Your task to perform on an android device: open app "WhatsApp Messenger" (install if not already installed) and enter user name: "cartons@outlook.com" and password: "approximated" Image 0: 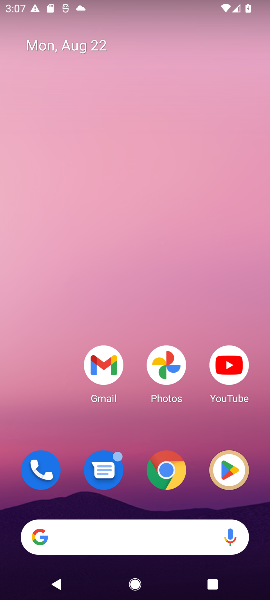
Step 0: drag from (76, 518) to (74, 88)
Your task to perform on an android device: open app "WhatsApp Messenger" (install if not already installed) and enter user name: "cartons@outlook.com" and password: "approximated" Image 1: 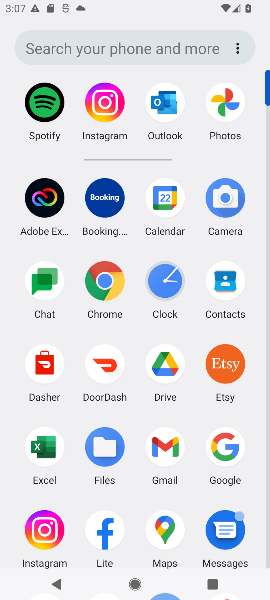
Step 1: drag from (111, 497) to (119, 89)
Your task to perform on an android device: open app "WhatsApp Messenger" (install if not already installed) and enter user name: "cartons@outlook.com" and password: "approximated" Image 2: 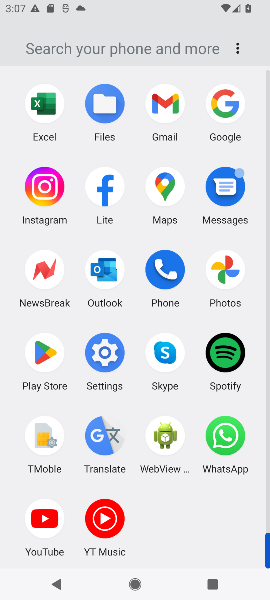
Step 2: click (34, 356)
Your task to perform on an android device: open app "WhatsApp Messenger" (install if not already installed) and enter user name: "cartons@outlook.com" and password: "approximated" Image 3: 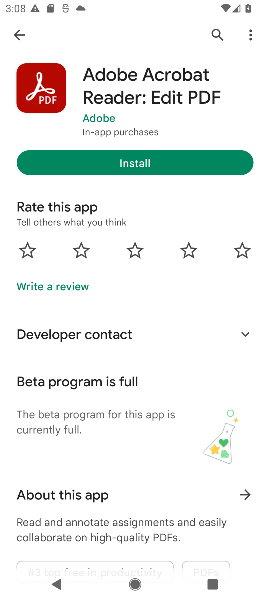
Step 3: click (9, 29)
Your task to perform on an android device: open app "WhatsApp Messenger" (install if not already installed) and enter user name: "cartons@outlook.com" and password: "approximated" Image 4: 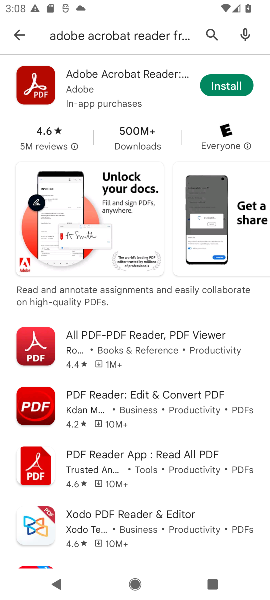
Step 4: click (21, 30)
Your task to perform on an android device: open app "WhatsApp Messenger" (install if not already installed) and enter user name: "cartons@outlook.com" and password: "approximated" Image 5: 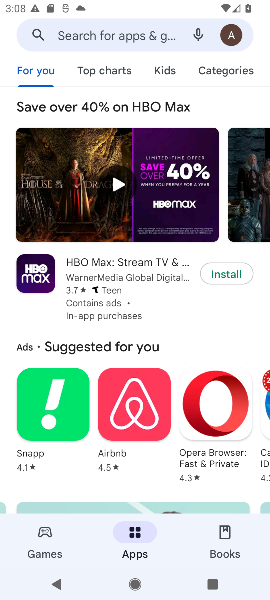
Step 5: click (117, 19)
Your task to perform on an android device: open app "WhatsApp Messenger" (install if not already installed) and enter user name: "cartons@outlook.com" and password: "approximated" Image 6: 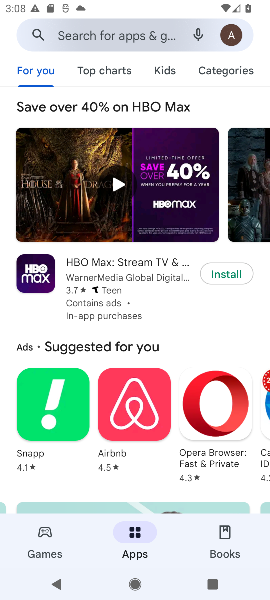
Step 6: click (117, 33)
Your task to perform on an android device: open app "WhatsApp Messenger" (install if not already installed) and enter user name: "cartons@outlook.com" and password: "approximated" Image 7: 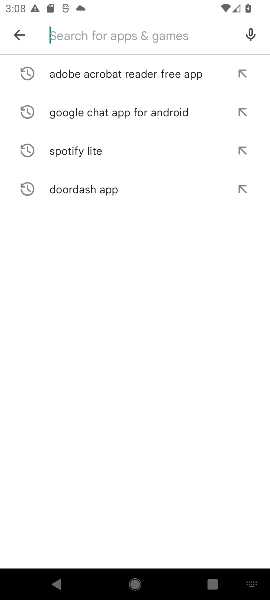
Step 7: type "WhatsApp Messenger "
Your task to perform on an android device: open app "WhatsApp Messenger" (install if not already installed) and enter user name: "cartons@outlook.com" and password: "approximated" Image 8: 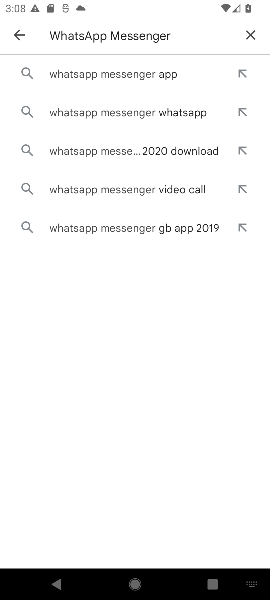
Step 8: click (136, 61)
Your task to perform on an android device: open app "WhatsApp Messenger" (install if not already installed) and enter user name: "cartons@outlook.com" and password: "approximated" Image 9: 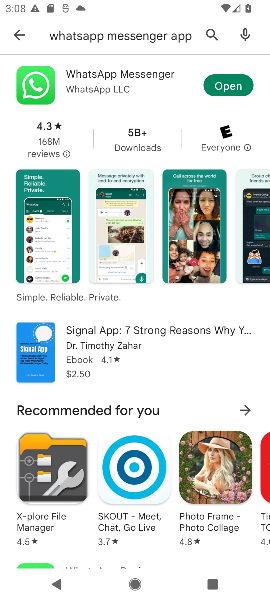
Step 9: click (229, 76)
Your task to perform on an android device: open app "WhatsApp Messenger" (install if not already installed) and enter user name: "cartons@outlook.com" and password: "approximated" Image 10: 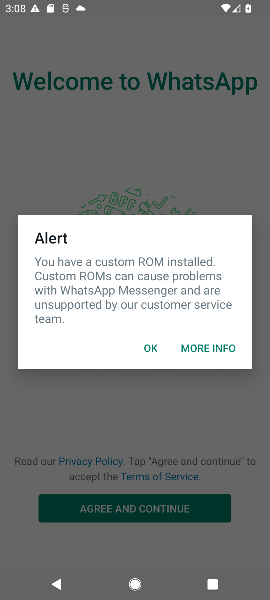
Step 10: click (151, 354)
Your task to perform on an android device: open app "WhatsApp Messenger" (install if not already installed) and enter user name: "cartons@outlook.com" and password: "approximated" Image 11: 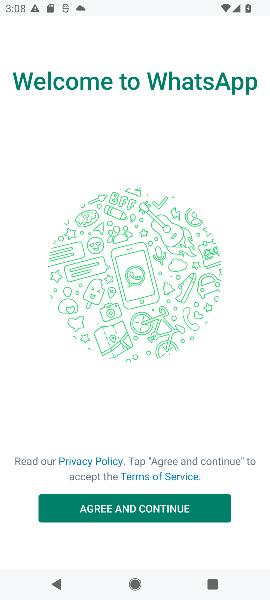
Step 11: task complete